Your task to perform on an android device: Find coffee shops on Maps Image 0: 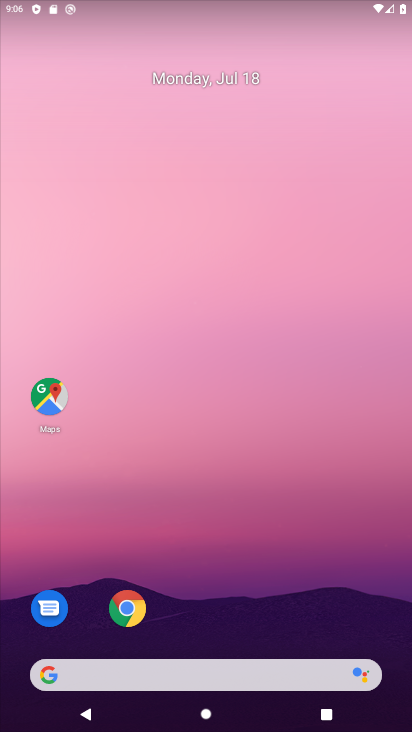
Step 0: press home button
Your task to perform on an android device: Find coffee shops on Maps Image 1: 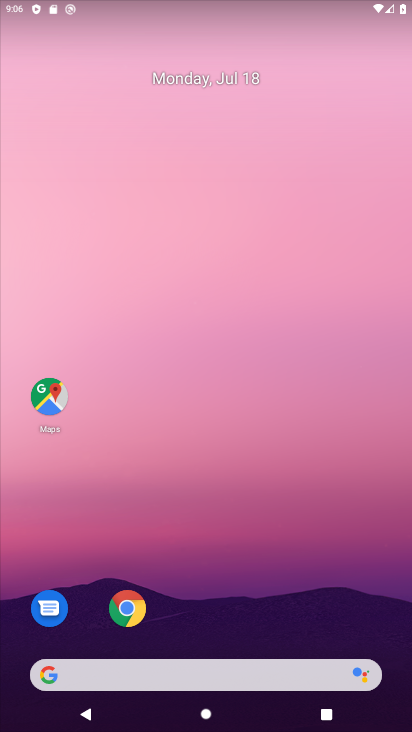
Step 1: click (46, 388)
Your task to perform on an android device: Find coffee shops on Maps Image 2: 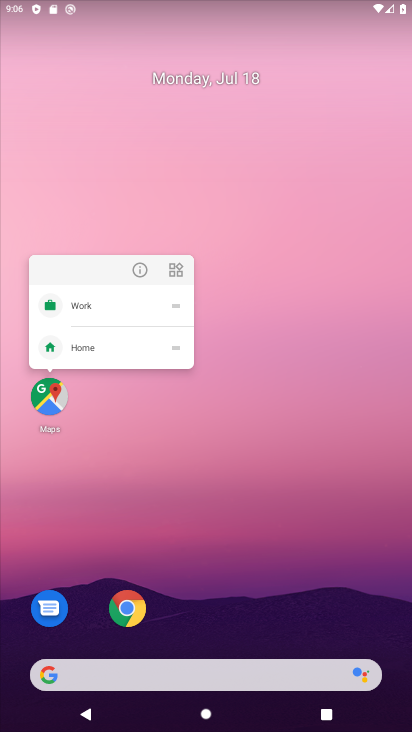
Step 2: click (47, 390)
Your task to perform on an android device: Find coffee shops on Maps Image 3: 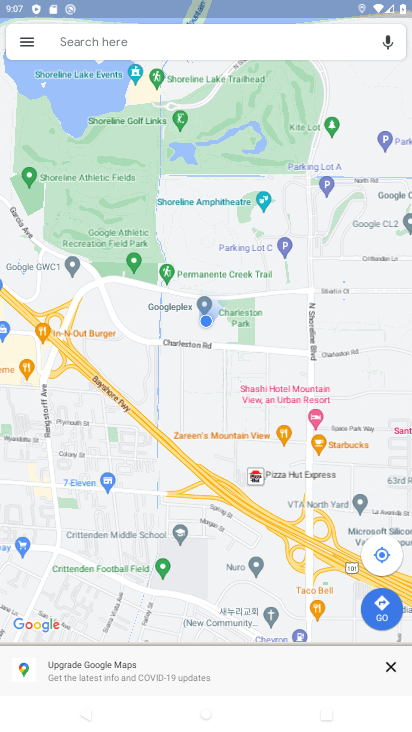
Step 3: click (111, 35)
Your task to perform on an android device: Find coffee shops on Maps Image 4: 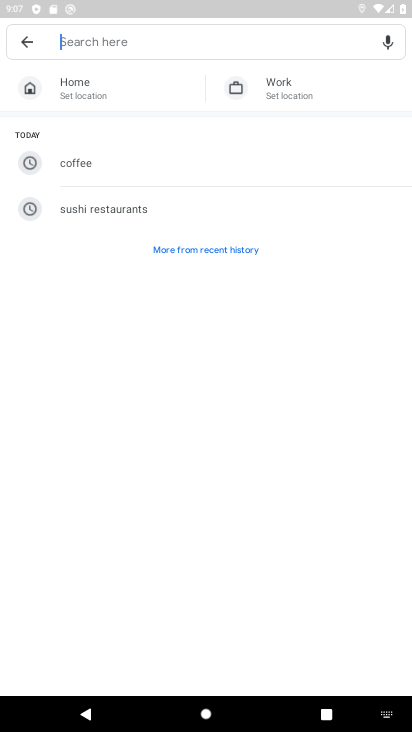
Step 4: click (84, 164)
Your task to perform on an android device: Find coffee shops on Maps Image 5: 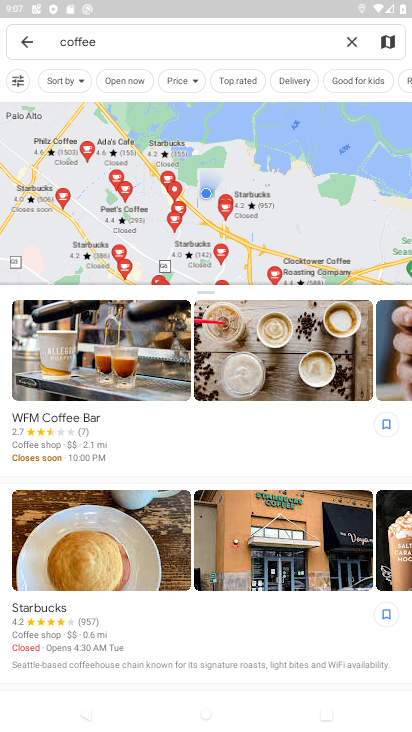
Step 5: drag from (193, 471) to (245, 118)
Your task to perform on an android device: Find coffee shops on Maps Image 6: 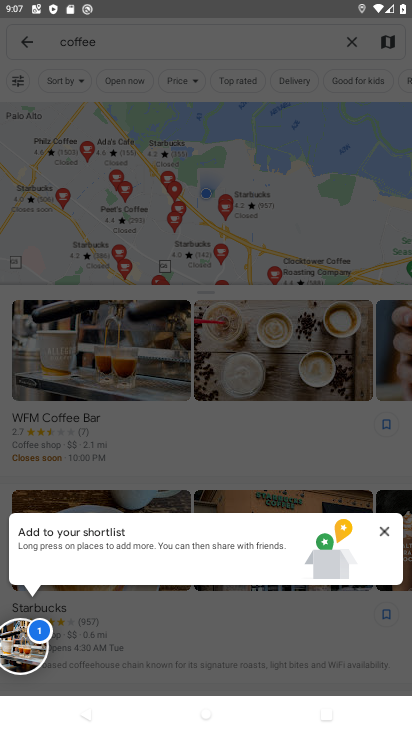
Step 6: drag from (16, 657) to (227, 654)
Your task to perform on an android device: Find coffee shops on Maps Image 7: 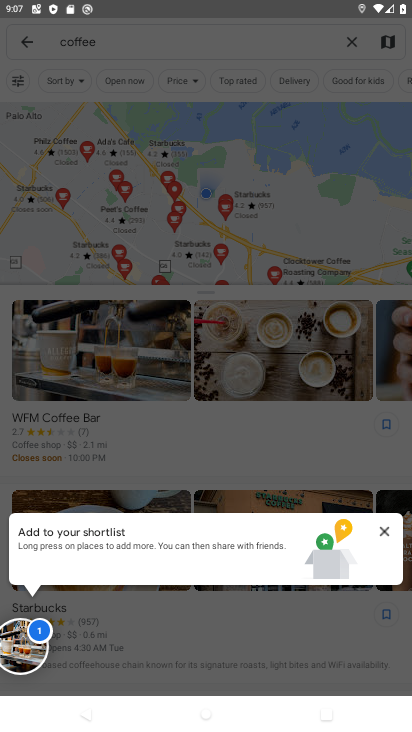
Step 7: click (382, 531)
Your task to perform on an android device: Find coffee shops on Maps Image 8: 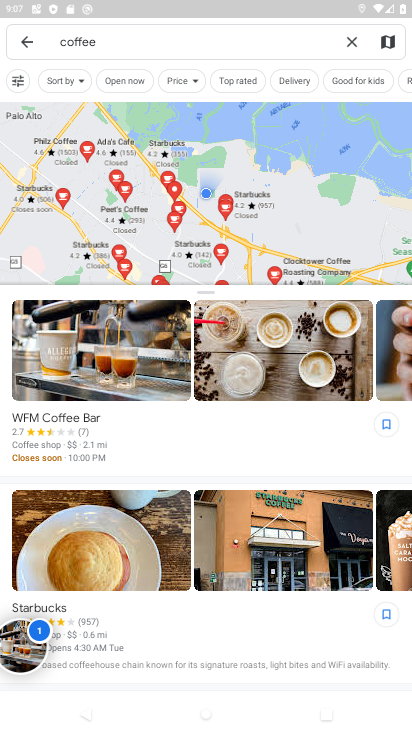
Step 8: drag from (20, 656) to (241, 729)
Your task to perform on an android device: Find coffee shops on Maps Image 9: 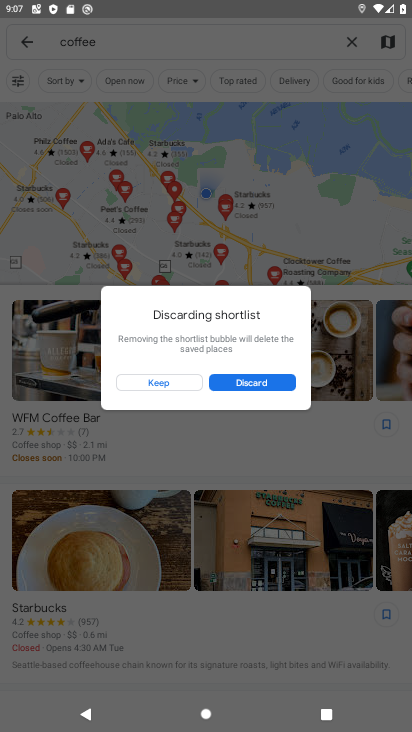
Step 9: click (259, 383)
Your task to perform on an android device: Find coffee shops on Maps Image 10: 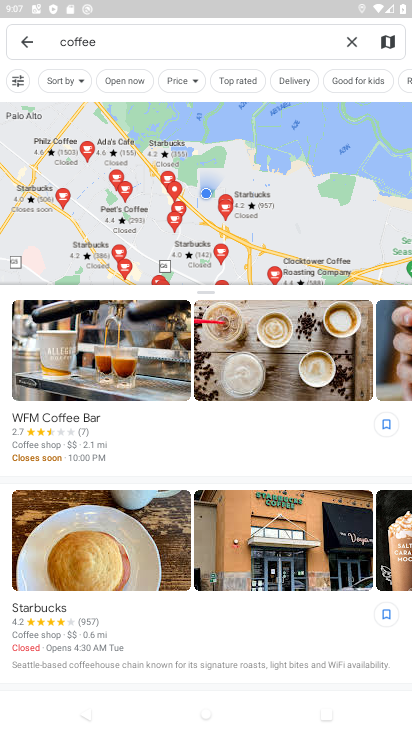
Step 10: task complete